Your task to perform on an android device: Open Youtube and go to the subscriptions tab Image 0: 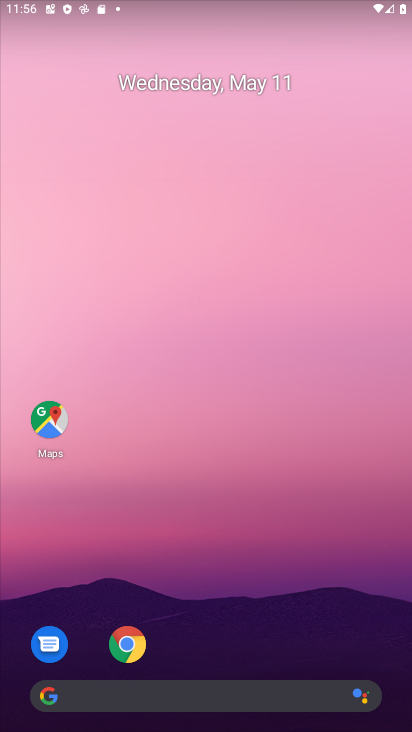
Step 0: drag from (292, 630) to (344, 72)
Your task to perform on an android device: Open Youtube and go to the subscriptions tab Image 1: 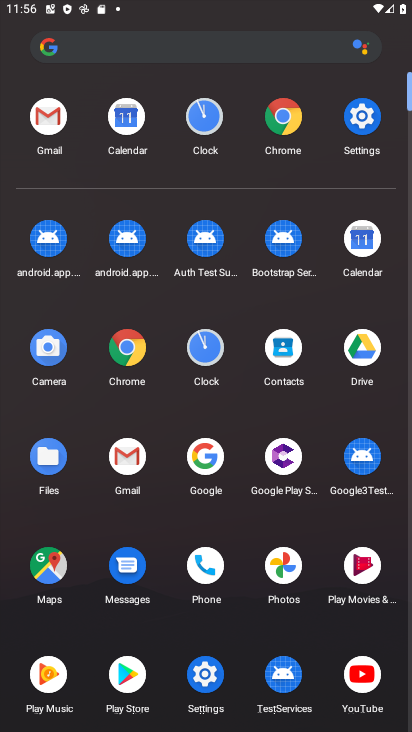
Step 1: click (356, 668)
Your task to perform on an android device: Open Youtube and go to the subscriptions tab Image 2: 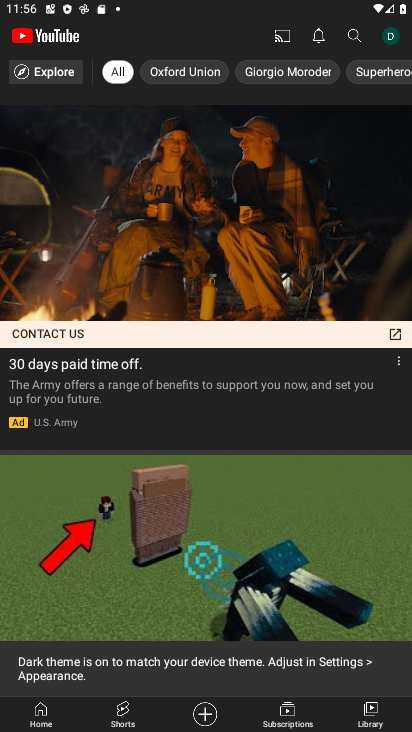
Step 2: click (300, 722)
Your task to perform on an android device: Open Youtube and go to the subscriptions tab Image 3: 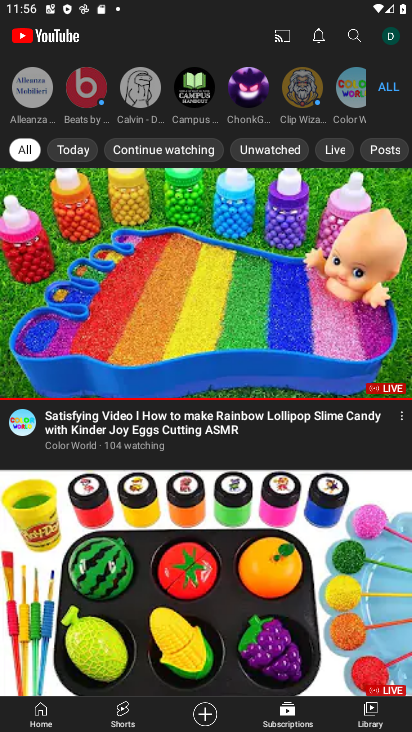
Step 3: task complete